Your task to perform on an android device: toggle sleep mode Image 0: 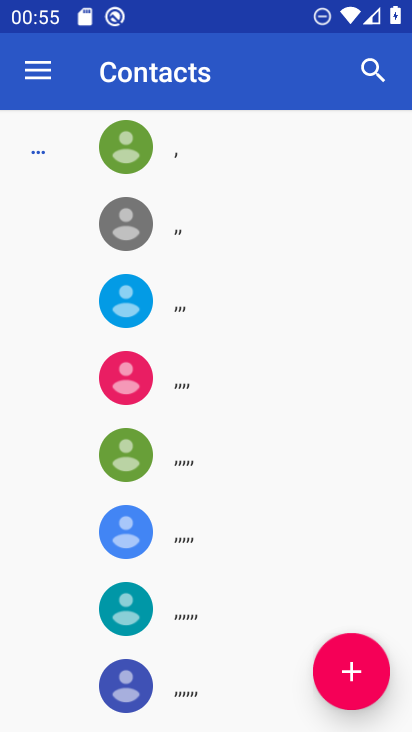
Step 0: press home button
Your task to perform on an android device: toggle sleep mode Image 1: 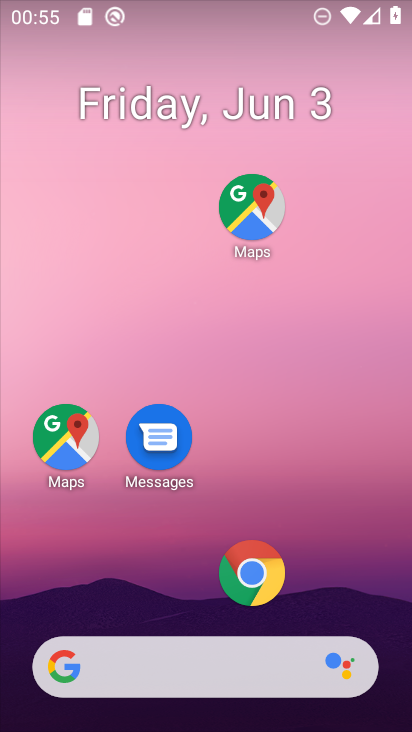
Step 1: drag from (288, 538) to (305, 93)
Your task to perform on an android device: toggle sleep mode Image 2: 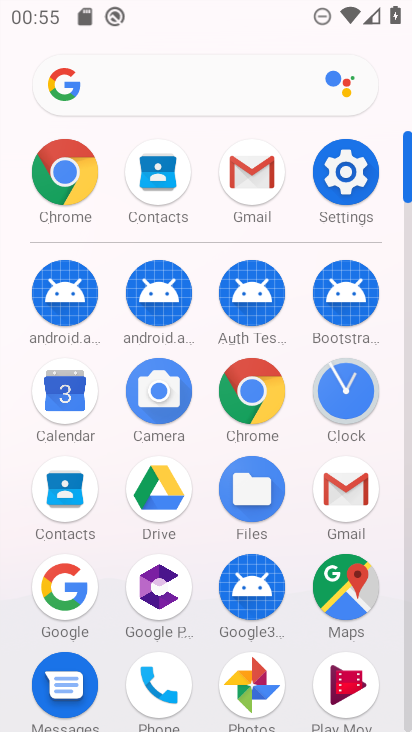
Step 2: click (341, 163)
Your task to perform on an android device: toggle sleep mode Image 3: 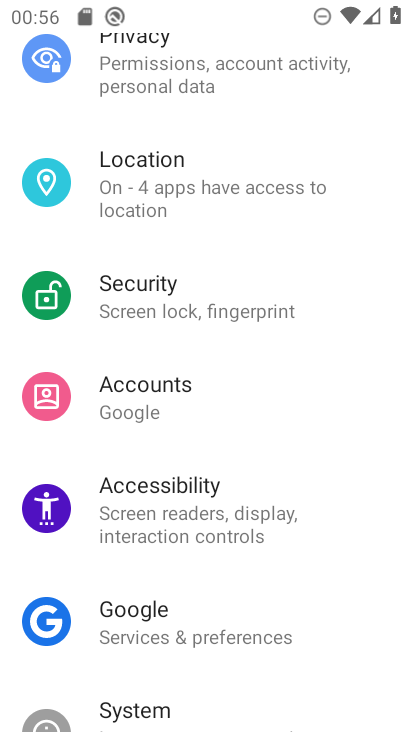
Step 3: task complete